Your task to perform on an android device: turn on javascript in the chrome app Image 0: 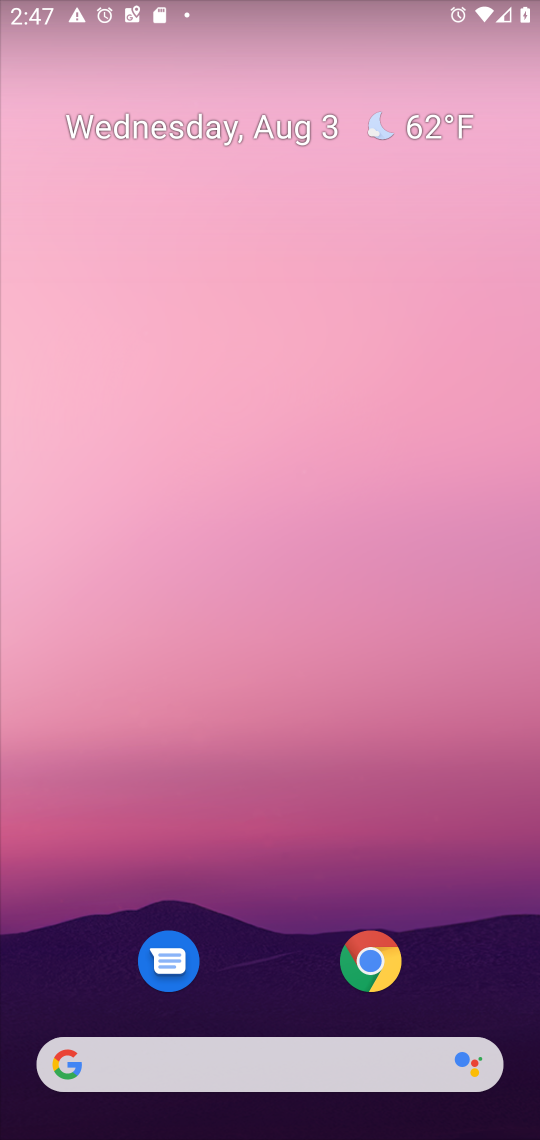
Step 0: click (369, 971)
Your task to perform on an android device: turn on javascript in the chrome app Image 1: 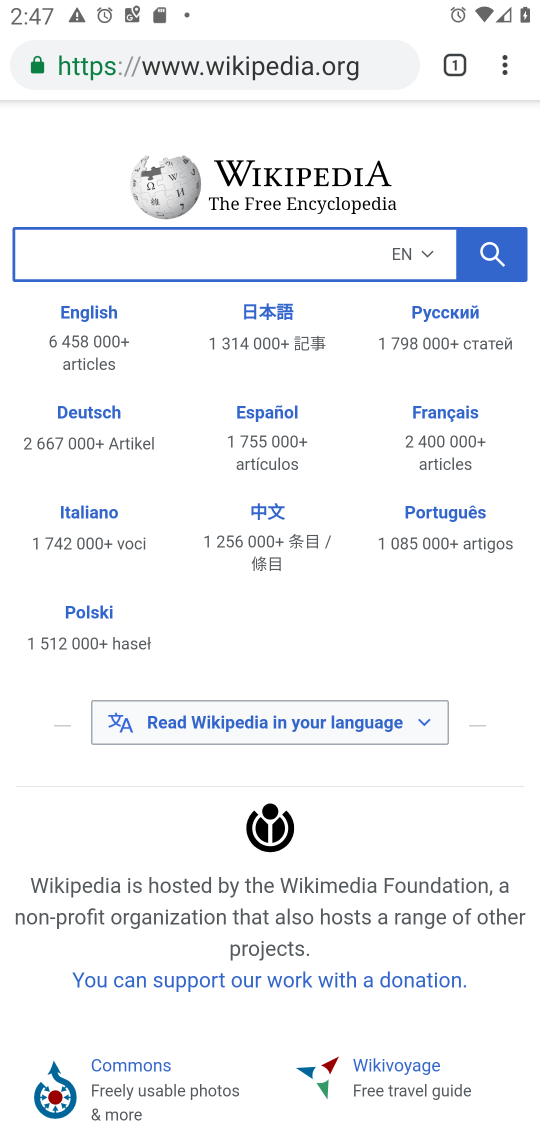
Step 1: click (501, 65)
Your task to perform on an android device: turn on javascript in the chrome app Image 2: 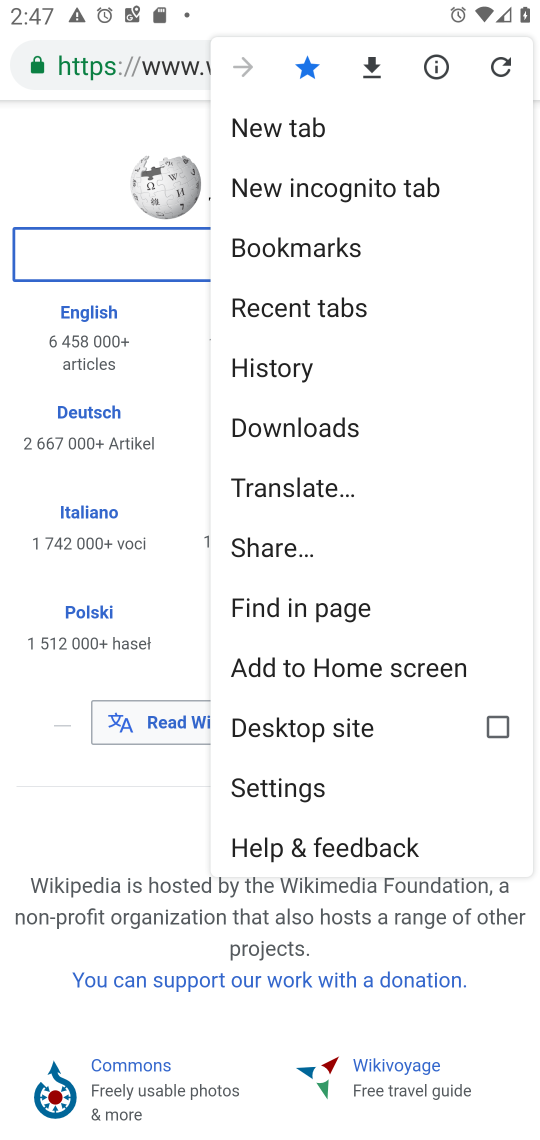
Step 2: click (281, 787)
Your task to perform on an android device: turn on javascript in the chrome app Image 3: 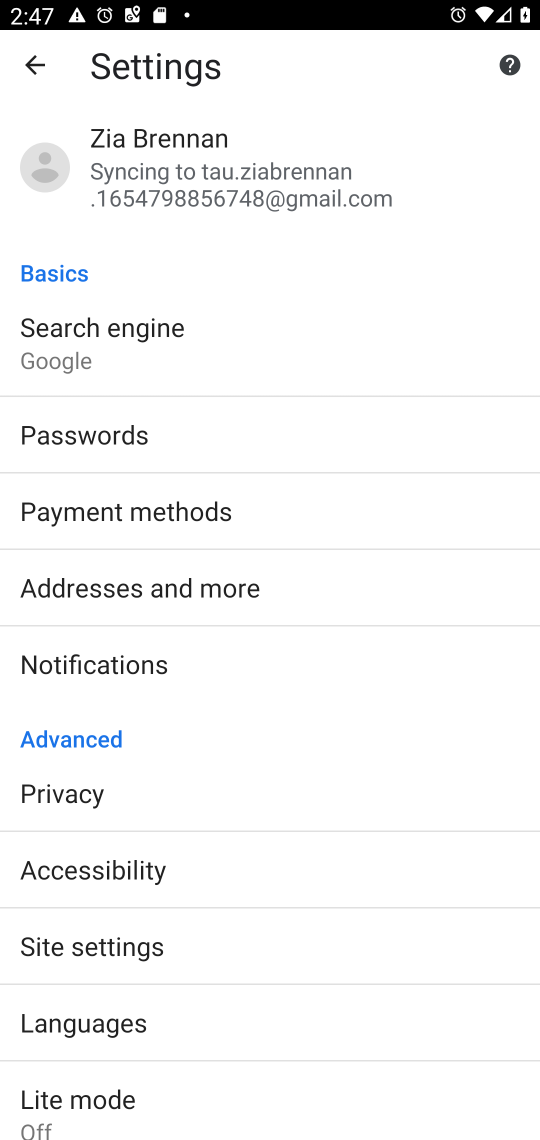
Step 3: click (84, 954)
Your task to perform on an android device: turn on javascript in the chrome app Image 4: 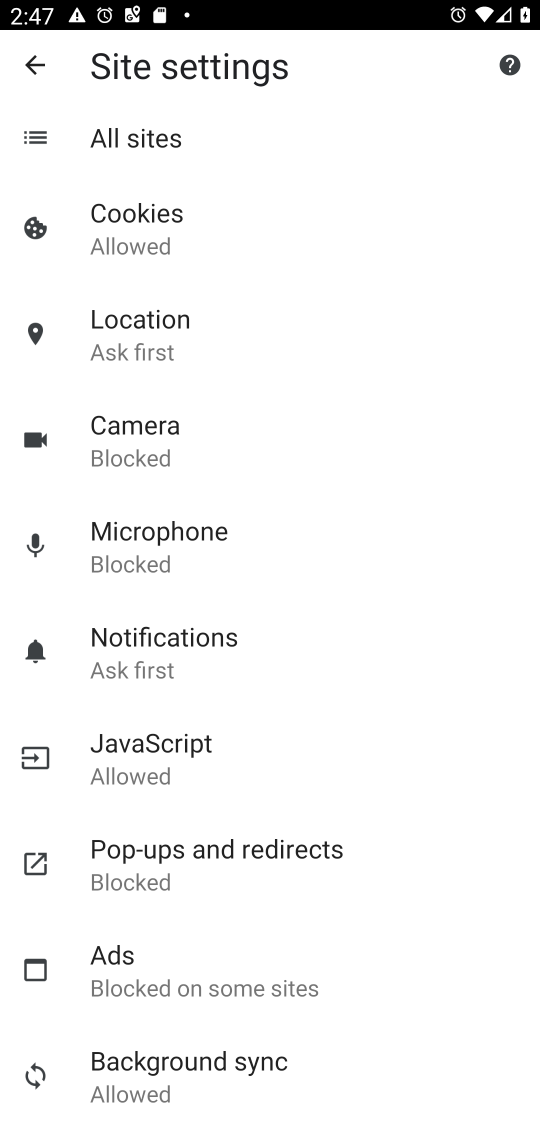
Step 4: click (124, 747)
Your task to perform on an android device: turn on javascript in the chrome app Image 5: 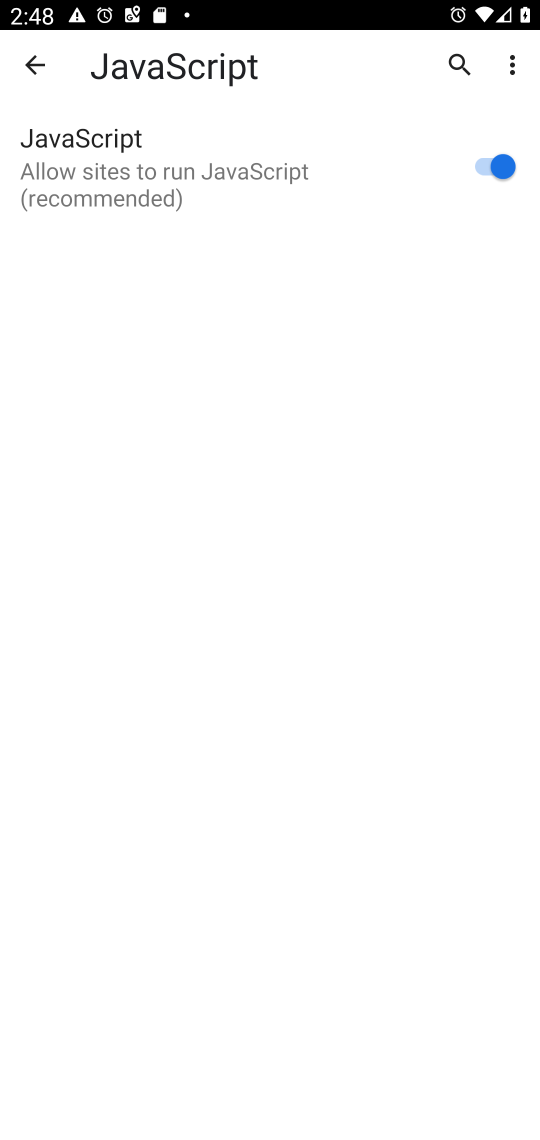
Step 5: task complete